Your task to perform on an android device: Open maps Image 0: 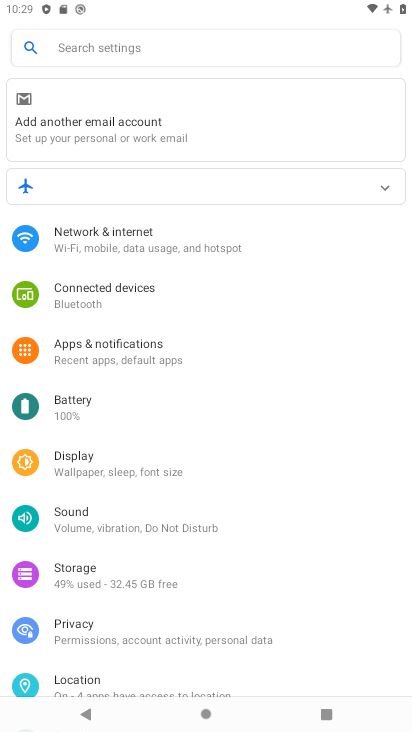
Step 0: press home button
Your task to perform on an android device: Open maps Image 1: 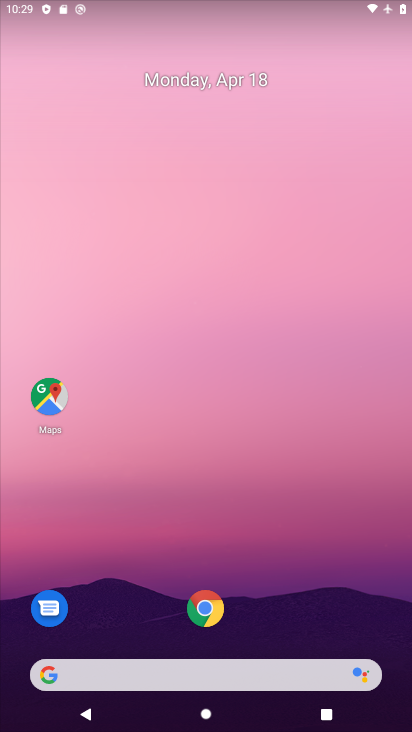
Step 1: click (47, 407)
Your task to perform on an android device: Open maps Image 2: 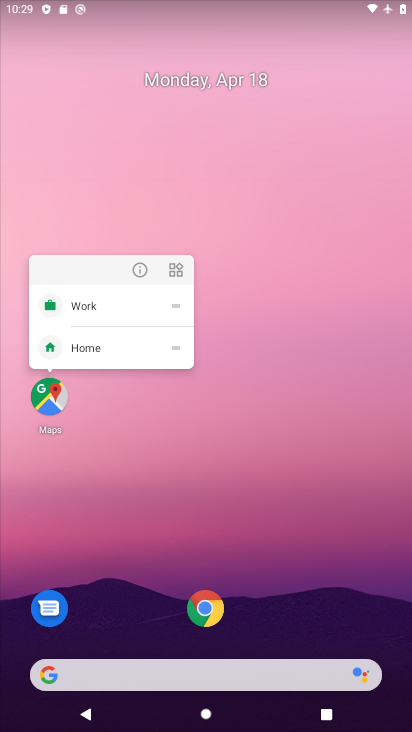
Step 2: click (54, 396)
Your task to perform on an android device: Open maps Image 3: 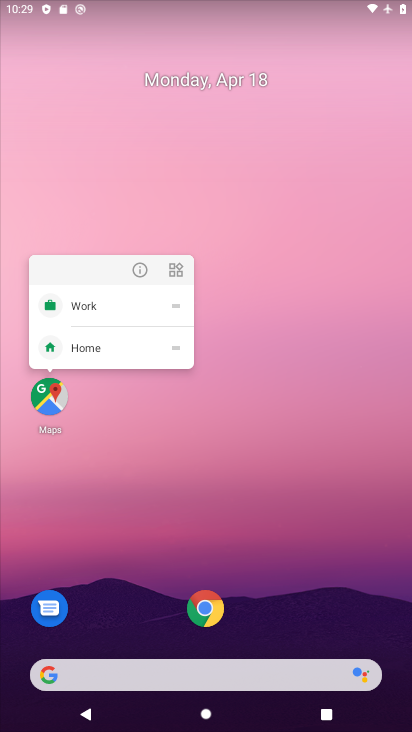
Step 3: click (52, 410)
Your task to perform on an android device: Open maps Image 4: 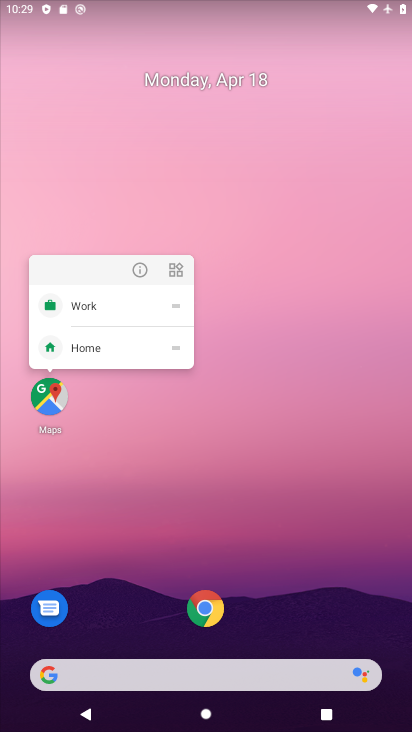
Step 4: click (54, 405)
Your task to perform on an android device: Open maps Image 5: 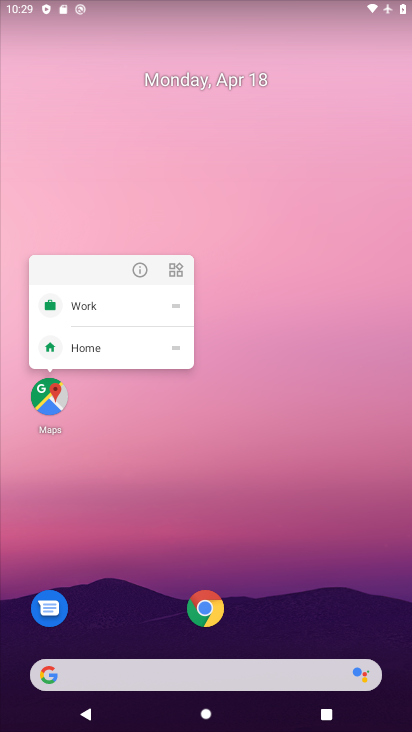
Step 5: click (58, 412)
Your task to perform on an android device: Open maps Image 6: 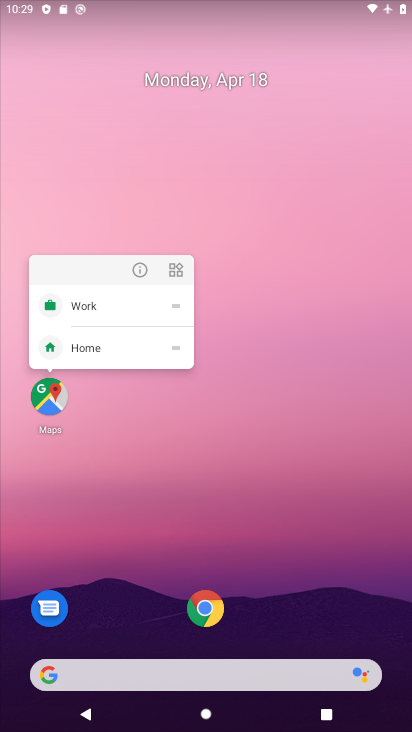
Step 6: click (38, 401)
Your task to perform on an android device: Open maps Image 7: 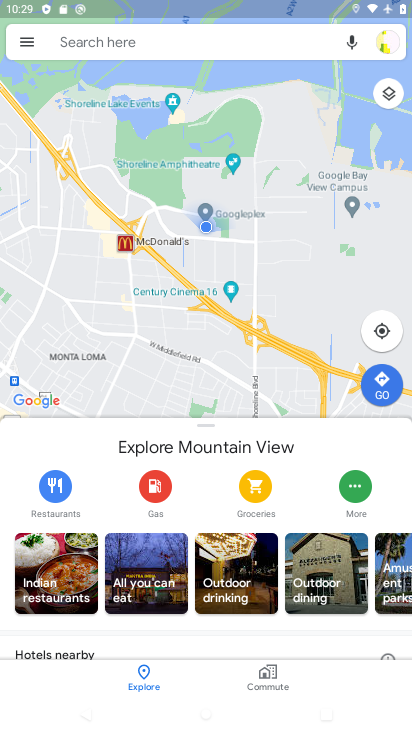
Step 7: task complete